Your task to perform on an android device: open app "Paramount+ | Peak Streaming" (install if not already installed) and go to login screen Image 0: 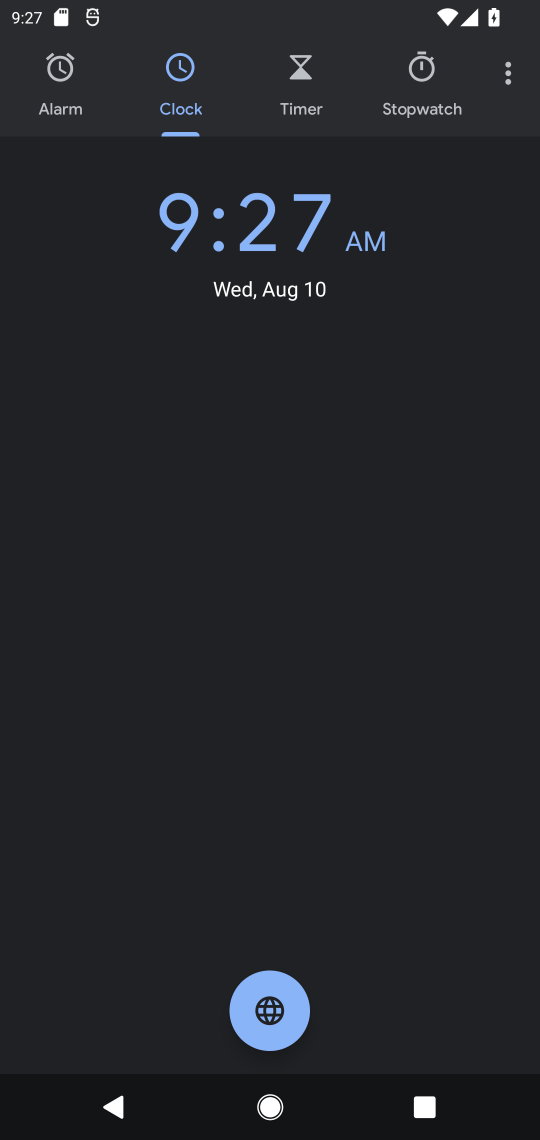
Step 0: press home button
Your task to perform on an android device: open app "Paramount+ | Peak Streaming" (install if not already installed) and go to login screen Image 1: 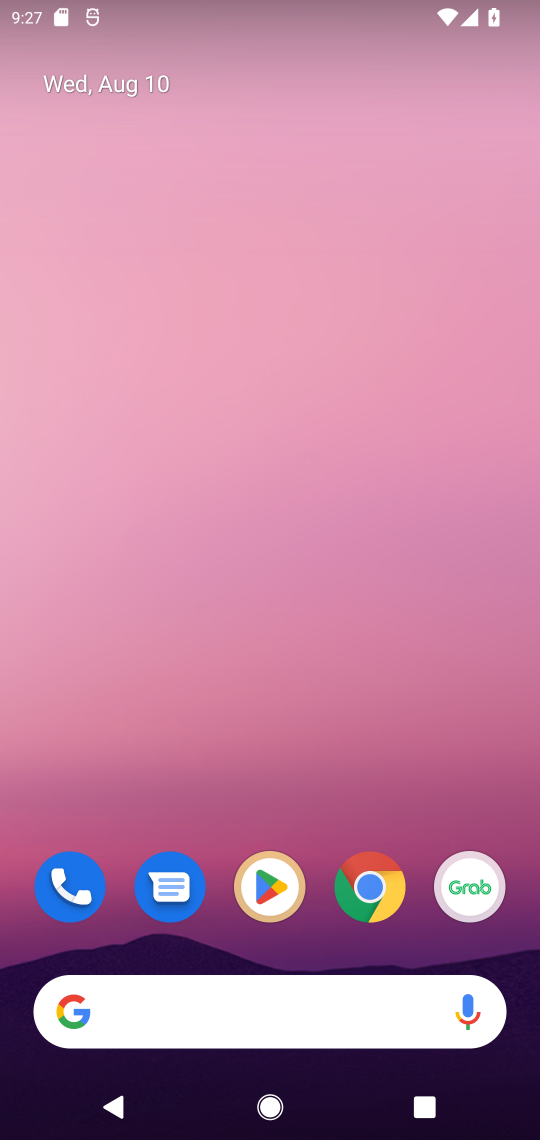
Step 1: click (255, 892)
Your task to perform on an android device: open app "Paramount+ | Peak Streaming" (install if not already installed) and go to login screen Image 2: 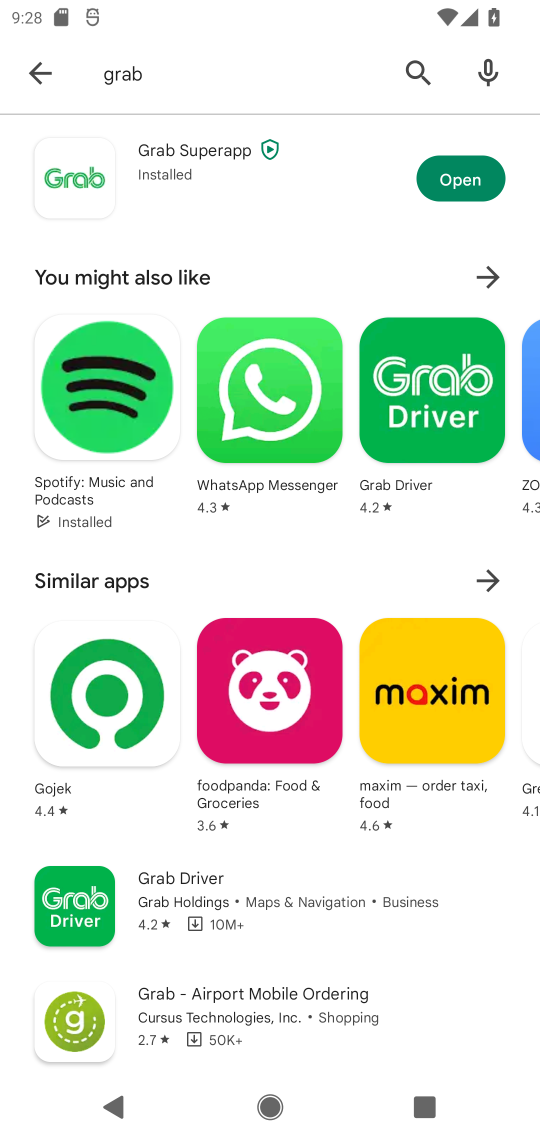
Step 2: click (423, 83)
Your task to perform on an android device: open app "Paramount+ | Peak Streaming" (install if not already installed) and go to login screen Image 3: 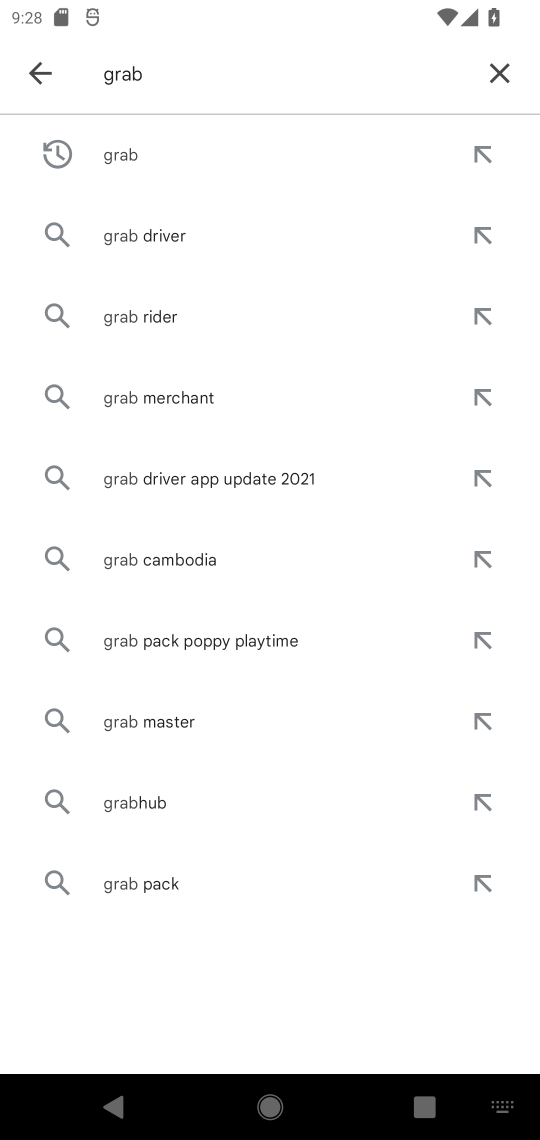
Step 3: click (512, 67)
Your task to perform on an android device: open app "Paramount+ | Peak Streaming" (install if not already installed) and go to login screen Image 4: 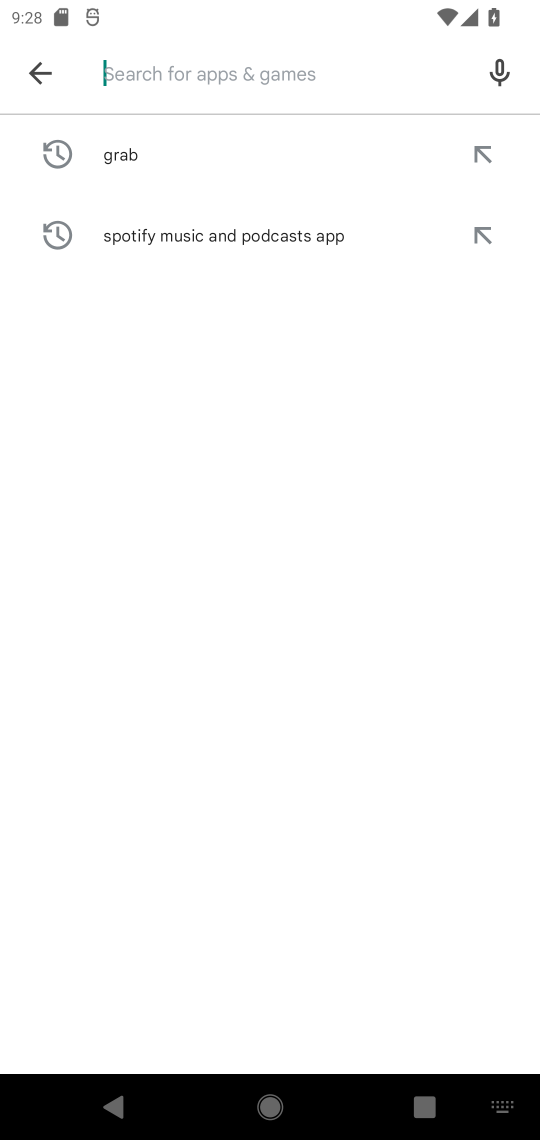
Step 4: type "Paramount+ | Peak Streaming"
Your task to perform on an android device: open app "Paramount+ | Peak Streaming" (install if not already installed) and go to login screen Image 5: 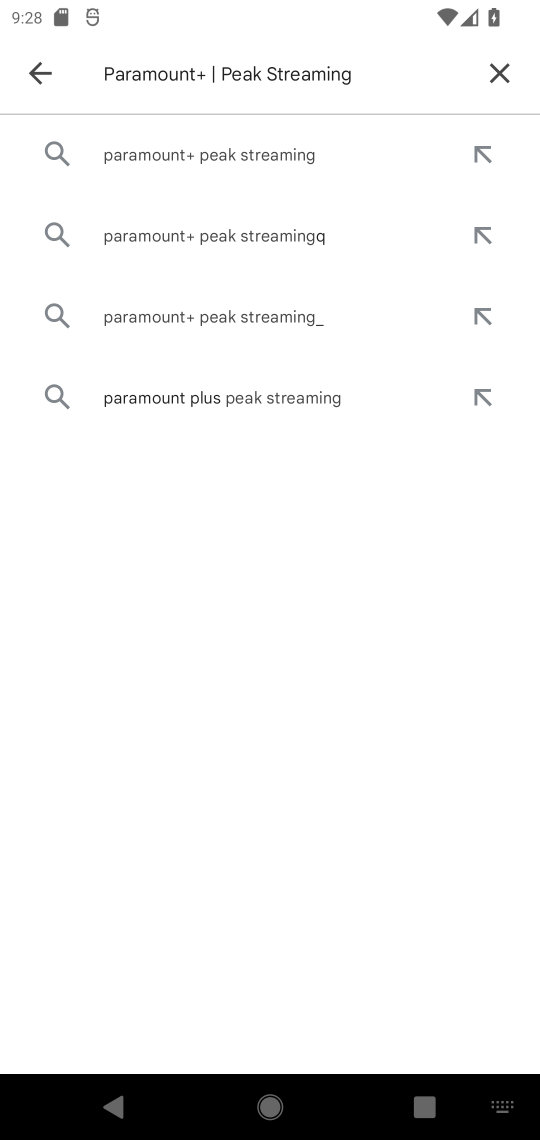
Step 5: click (175, 162)
Your task to perform on an android device: open app "Paramount+ | Peak Streaming" (install if not already installed) and go to login screen Image 6: 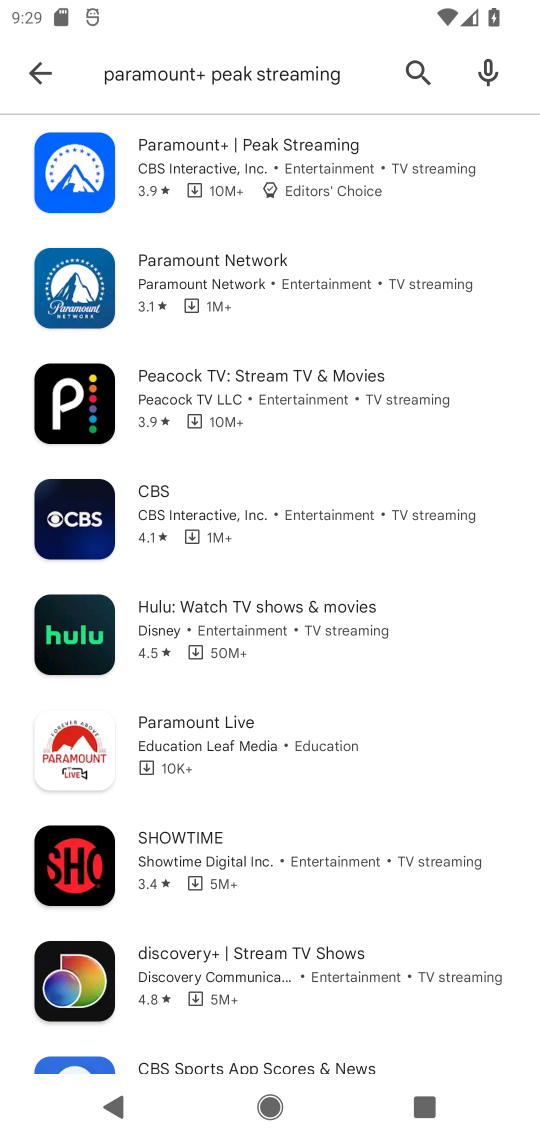
Step 6: click (175, 162)
Your task to perform on an android device: open app "Paramount+ | Peak Streaming" (install if not already installed) and go to login screen Image 7: 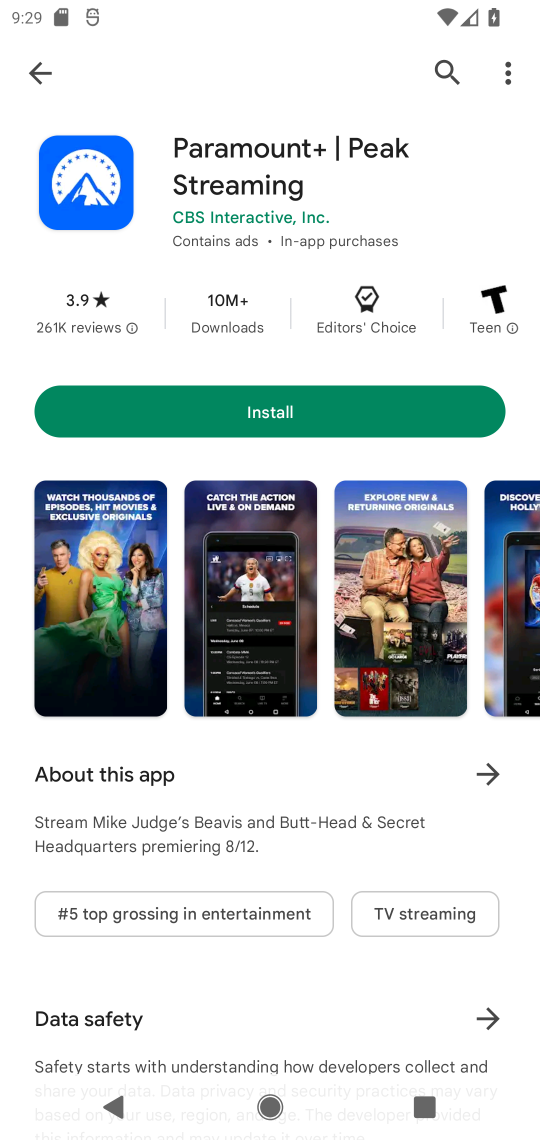
Step 7: click (222, 398)
Your task to perform on an android device: open app "Paramount+ | Peak Streaming" (install if not already installed) and go to login screen Image 8: 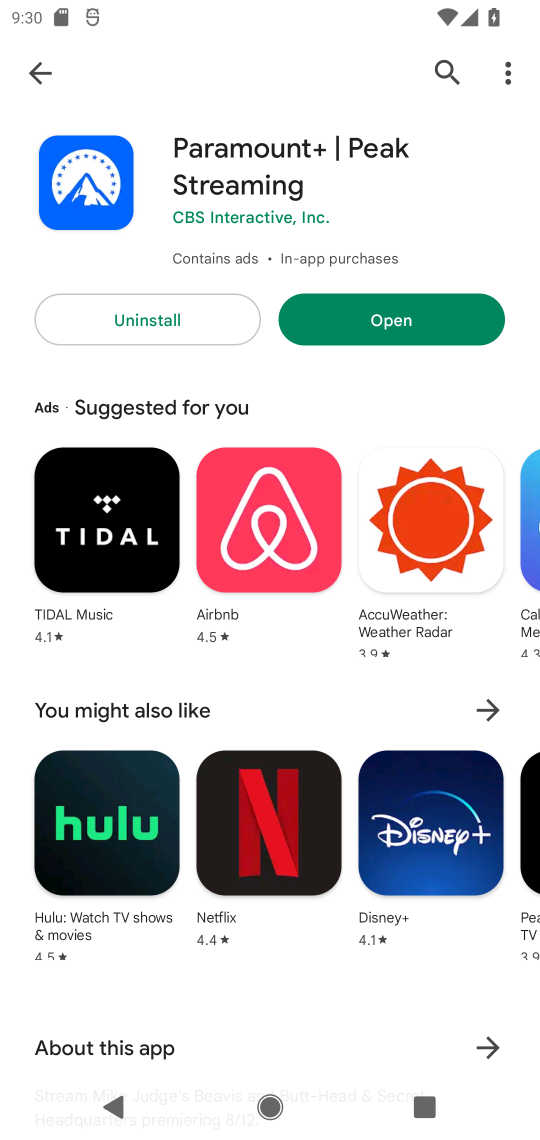
Step 8: click (373, 316)
Your task to perform on an android device: open app "Paramount+ | Peak Streaming" (install if not already installed) and go to login screen Image 9: 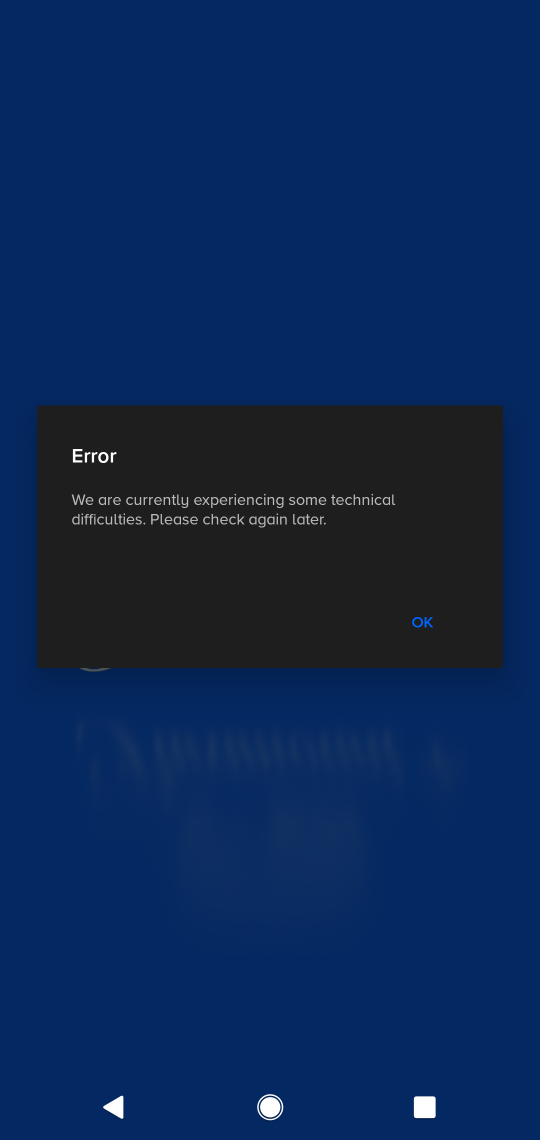
Step 9: click (420, 607)
Your task to perform on an android device: open app "Paramount+ | Peak Streaming" (install if not already installed) and go to login screen Image 10: 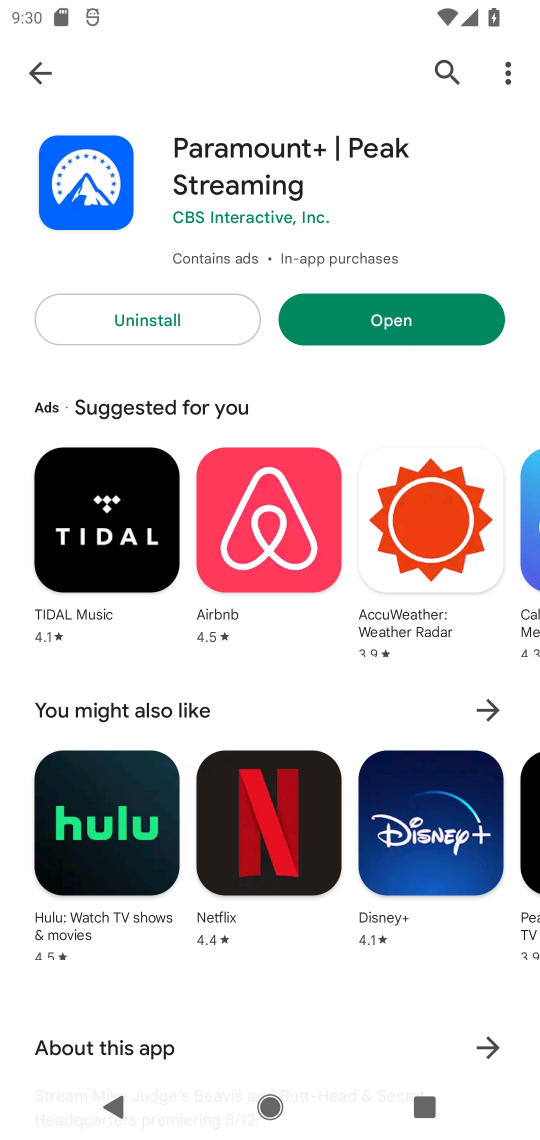
Step 10: task complete